Your task to perform on an android device: Open location settings Image 0: 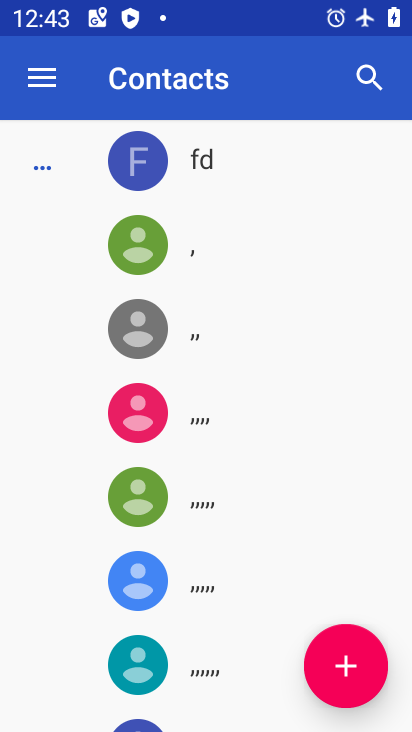
Step 0: press home button
Your task to perform on an android device: Open location settings Image 1: 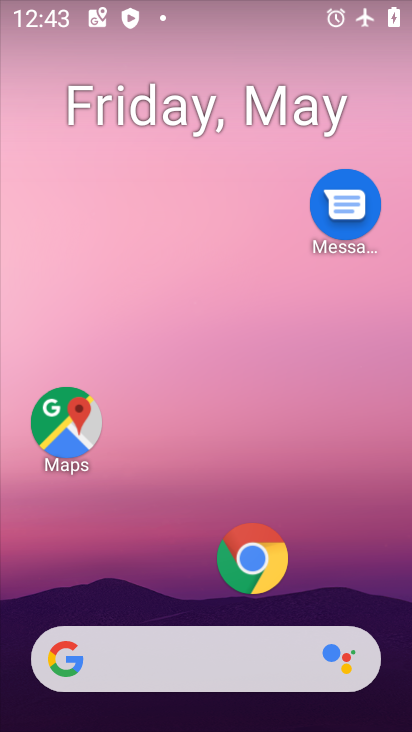
Step 1: drag from (256, 695) to (211, 68)
Your task to perform on an android device: Open location settings Image 2: 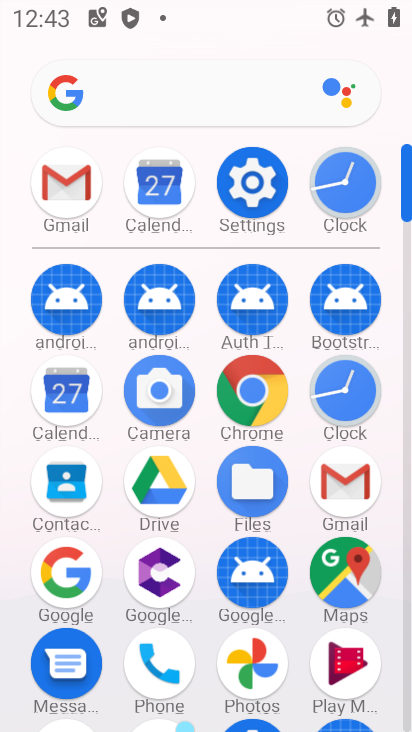
Step 2: click (261, 197)
Your task to perform on an android device: Open location settings Image 3: 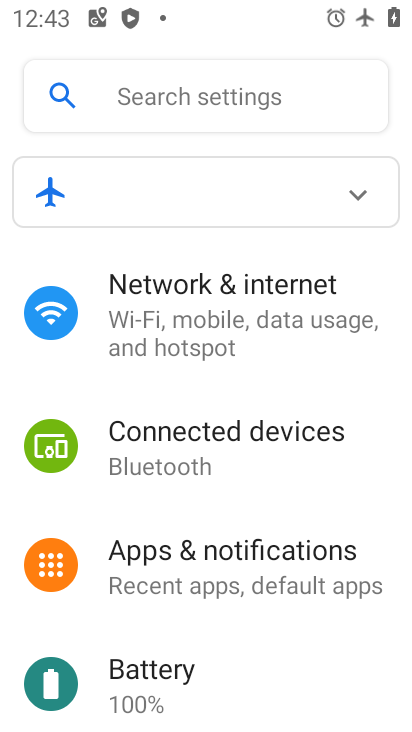
Step 3: drag from (263, 490) to (241, 206)
Your task to perform on an android device: Open location settings Image 4: 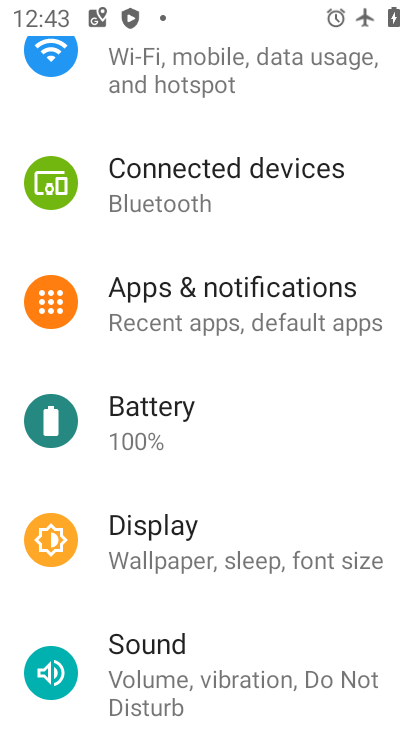
Step 4: drag from (256, 528) to (237, 248)
Your task to perform on an android device: Open location settings Image 5: 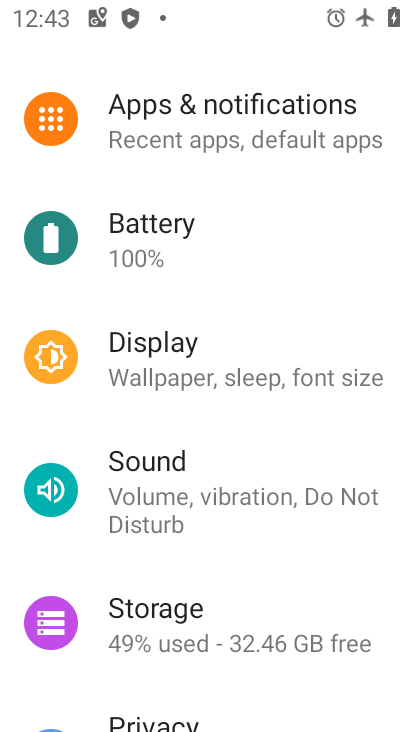
Step 5: drag from (247, 560) to (196, 347)
Your task to perform on an android device: Open location settings Image 6: 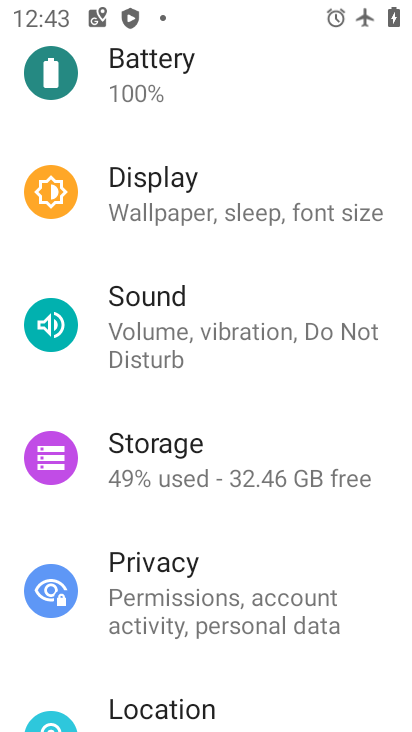
Step 6: drag from (207, 556) to (195, 346)
Your task to perform on an android device: Open location settings Image 7: 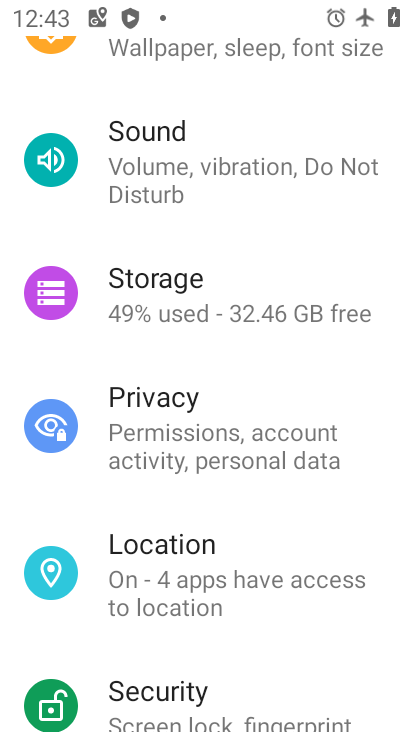
Step 7: click (234, 550)
Your task to perform on an android device: Open location settings Image 8: 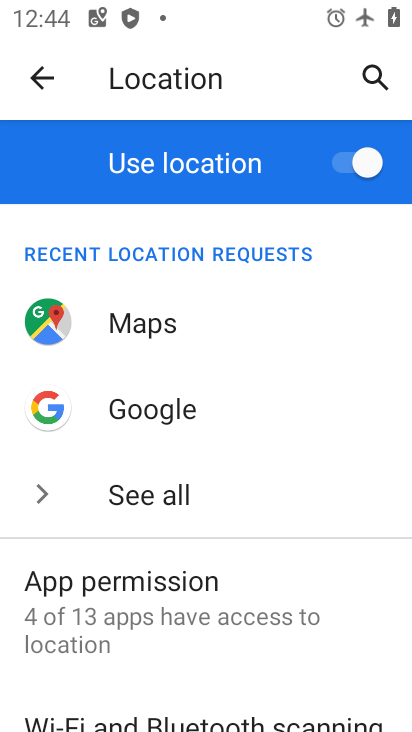
Step 8: task complete